Your task to perform on an android device: Open Google Chrome Image 0: 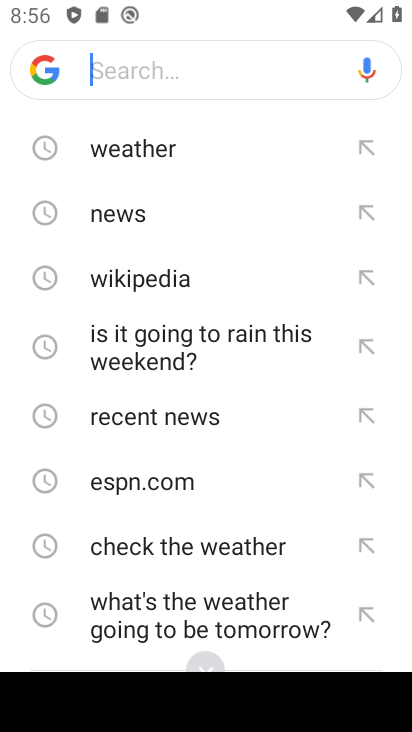
Step 0: press home button
Your task to perform on an android device: Open Google Chrome Image 1: 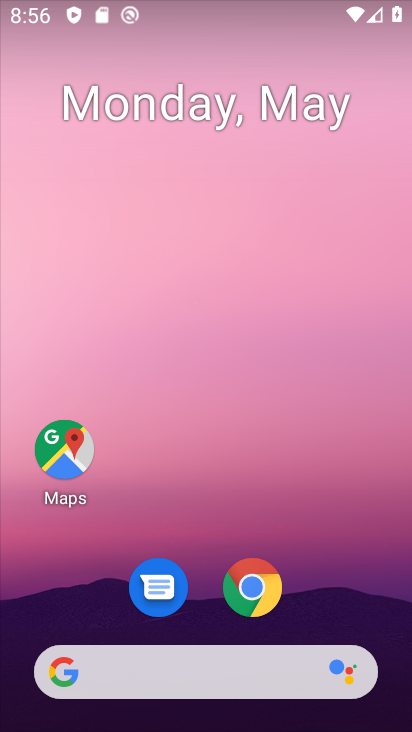
Step 1: click (244, 574)
Your task to perform on an android device: Open Google Chrome Image 2: 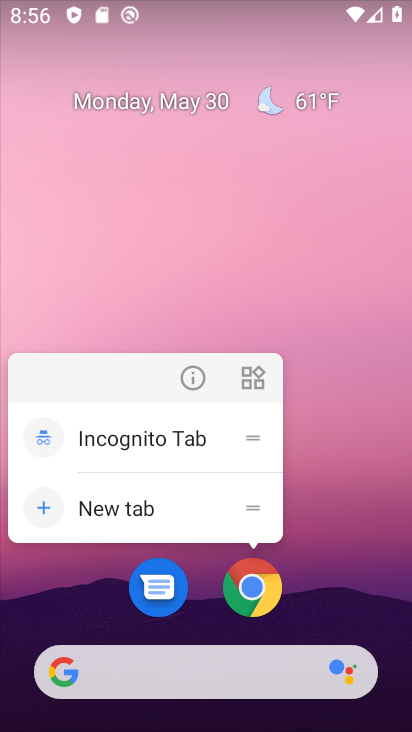
Step 2: click (268, 600)
Your task to perform on an android device: Open Google Chrome Image 3: 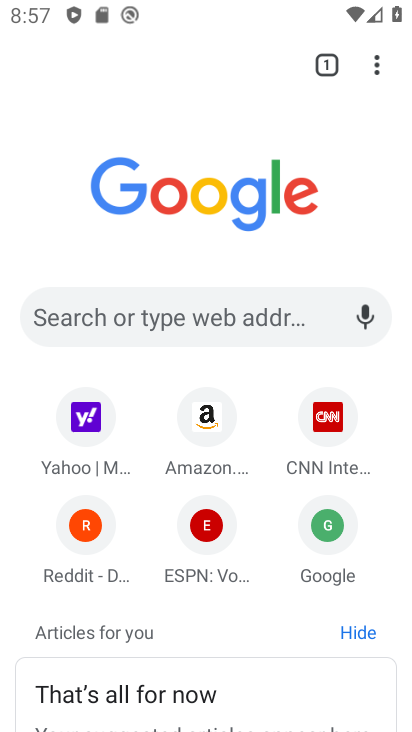
Step 3: task complete